Your task to perform on an android device: Open Google Image 0: 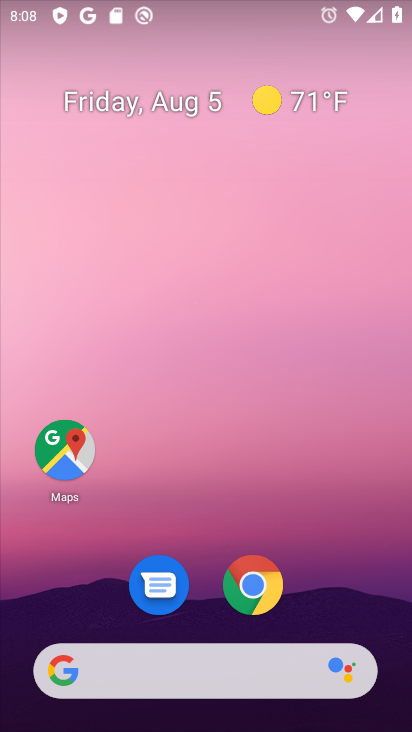
Step 0: click (220, 675)
Your task to perform on an android device: Open Google Image 1: 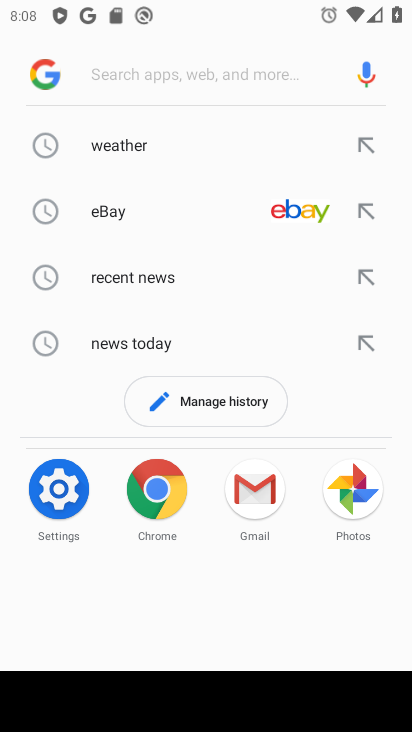
Step 1: click (46, 73)
Your task to perform on an android device: Open Google Image 2: 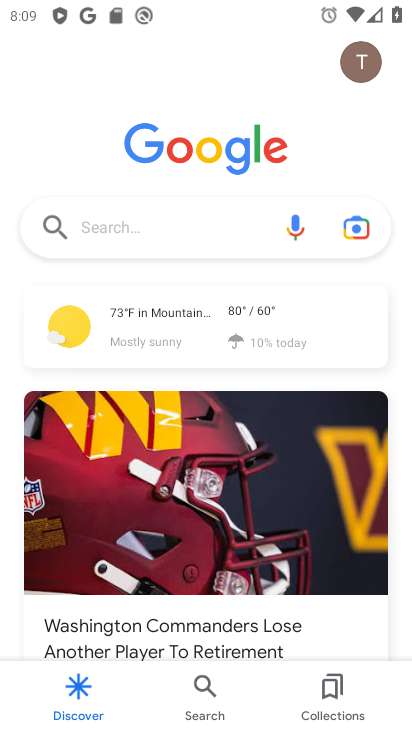
Step 2: task complete